Your task to perform on an android device: change text size in settings app Image 0: 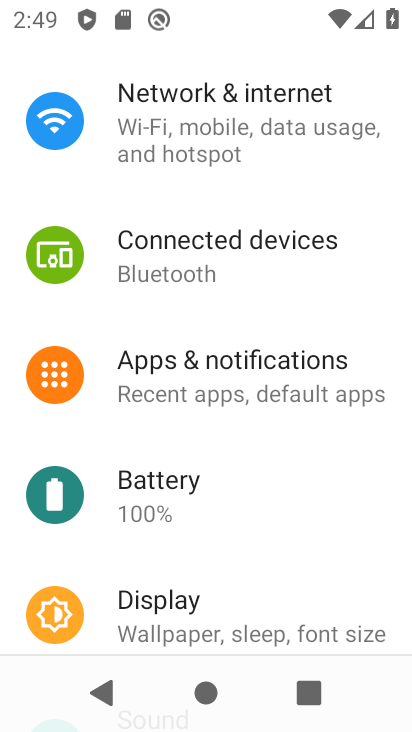
Step 0: click (235, 599)
Your task to perform on an android device: change text size in settings app Image 1: 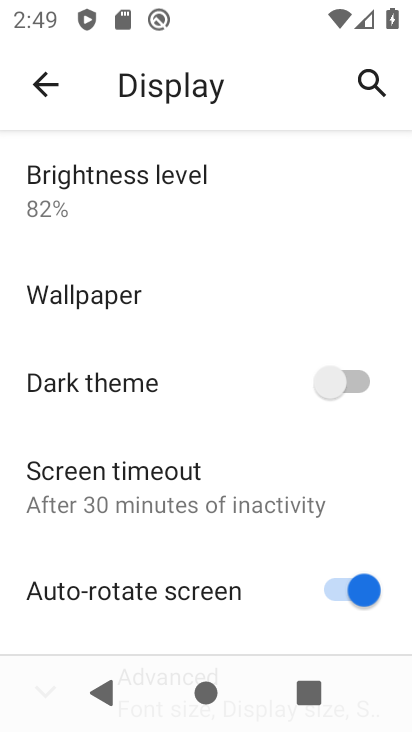
Step 1: drag from (159, 552) to (250, 220)
Your task to perform on an android device: change text size in settings app Image 2: 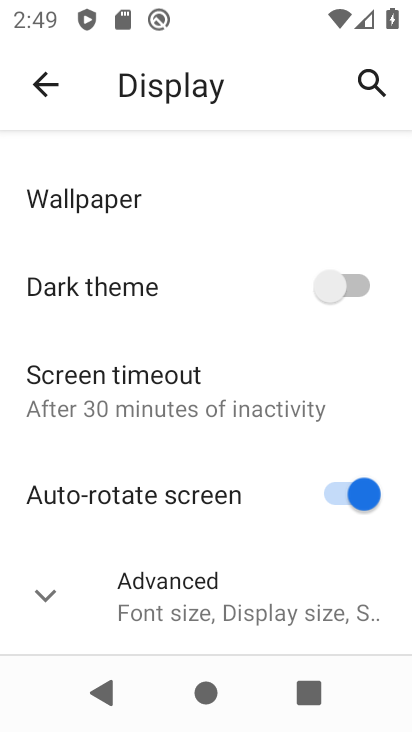
Step 2: click (177, 585)
Your task to perform on an android device: change text size in settings app Image 3: 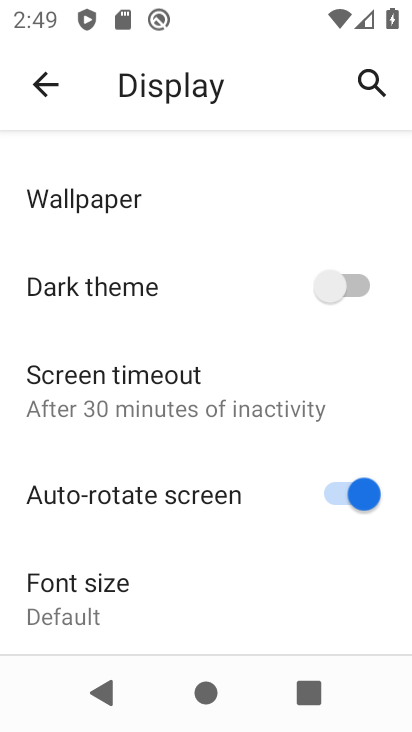
Step 3: click (120, 594)
Your task to perform on an android device: change text size in settings app Image 4: 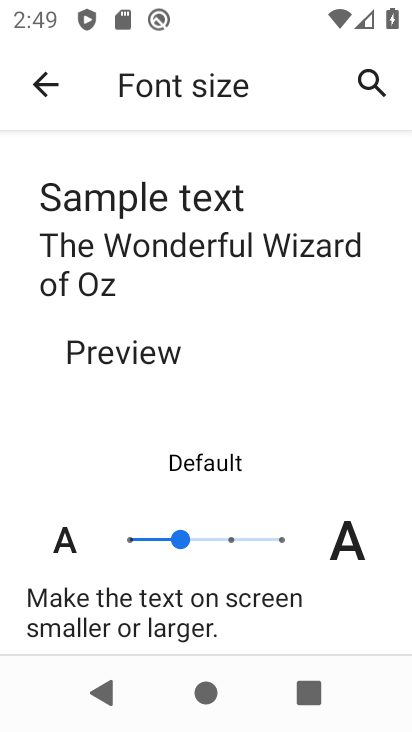
Step 4: click (233, 542)
Your task to perform on an android device: change text size in settings app Image 5: 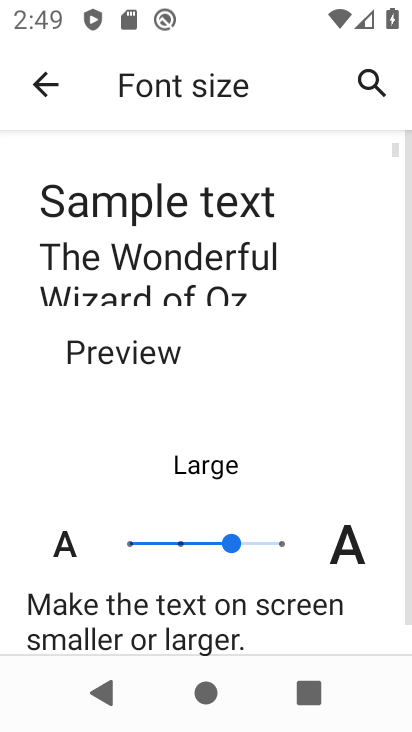
Step 5: task complete